Your task to perform on an android device: toggle wifi Image 0: 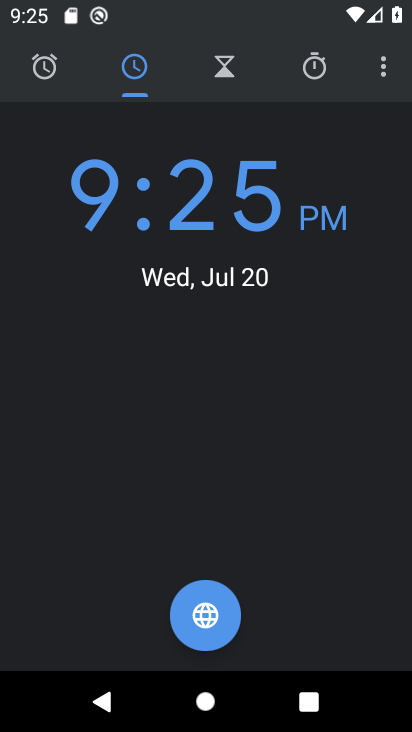
Step 0: press home button
Your task to perform on an android device: toggle wifi Image 1: 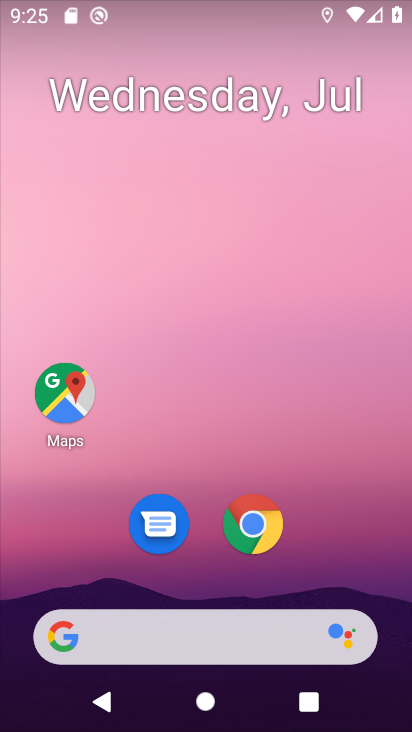
Step 1: drag from (351, 567) to (311, 73)
Your task to perform on an android device: toggle wifi Image 2: 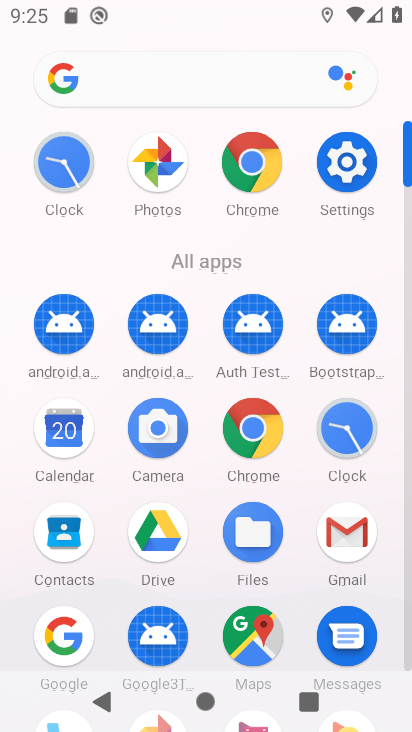
Step 2: click (342, 164)
Your task to perform on an android device: toggle wifi Image 3: 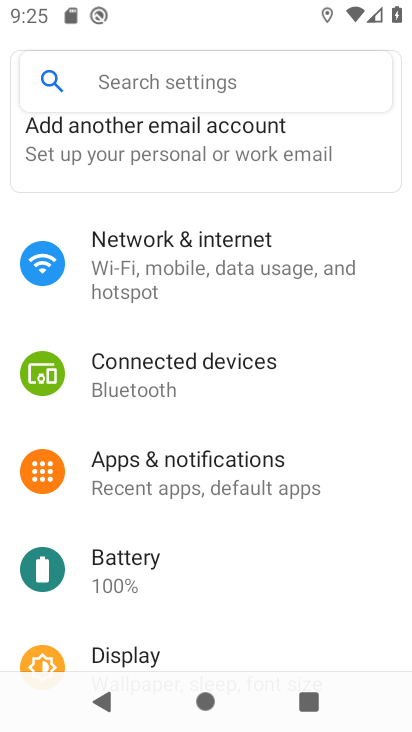
Step 3: click (240, 269)
Your task to perform on an android device: toggle wifi Image 4: 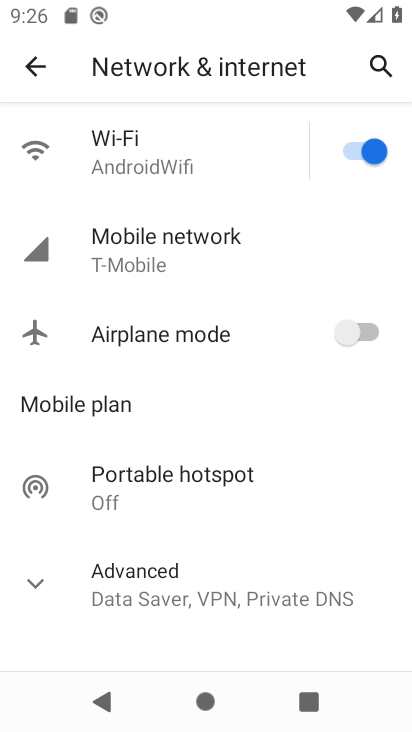
Step 4: click (351, 148)
Your task to perform on an android device: toggle wifi Image 5: 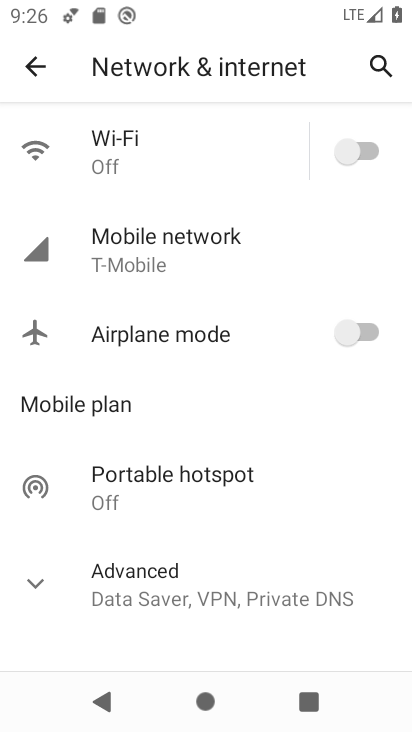
Step 5: task complete